Your task to perform on an android device: Open calendar and show me the first week of next month Image 0: 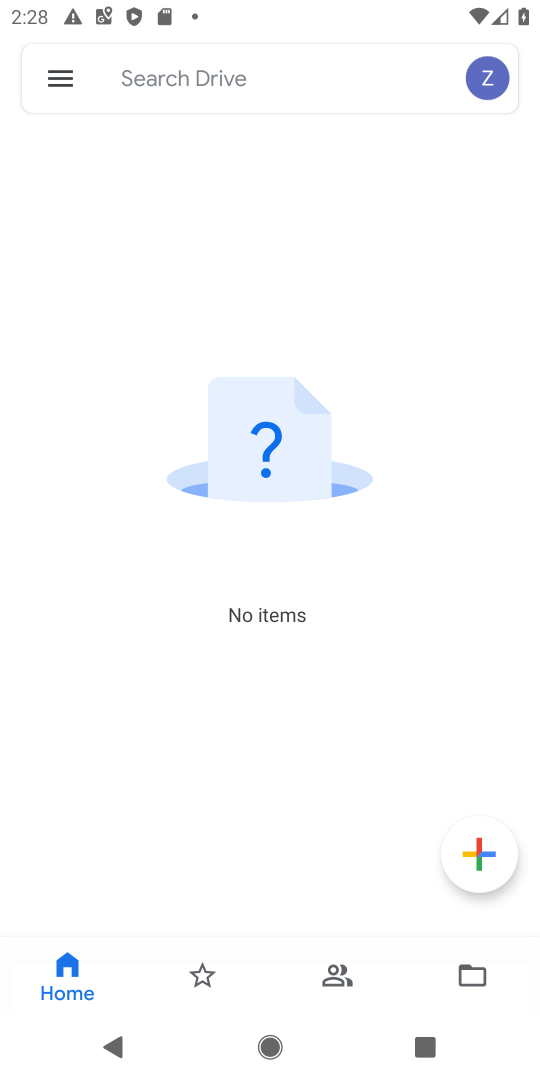
Step 0: press back button
Your task to perform on an android device: Open calendar and show me the first week of next month Image 1: 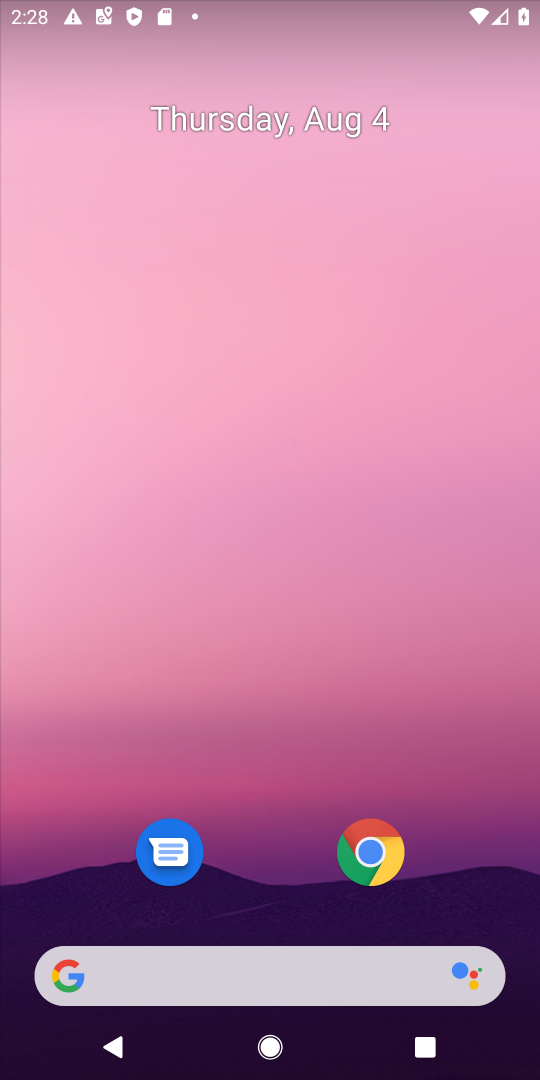
Step 1: drag from (244, 885) to (352, 16)
Your task to perform on an android device: Open calendar and show me the first week of next month Image 2: 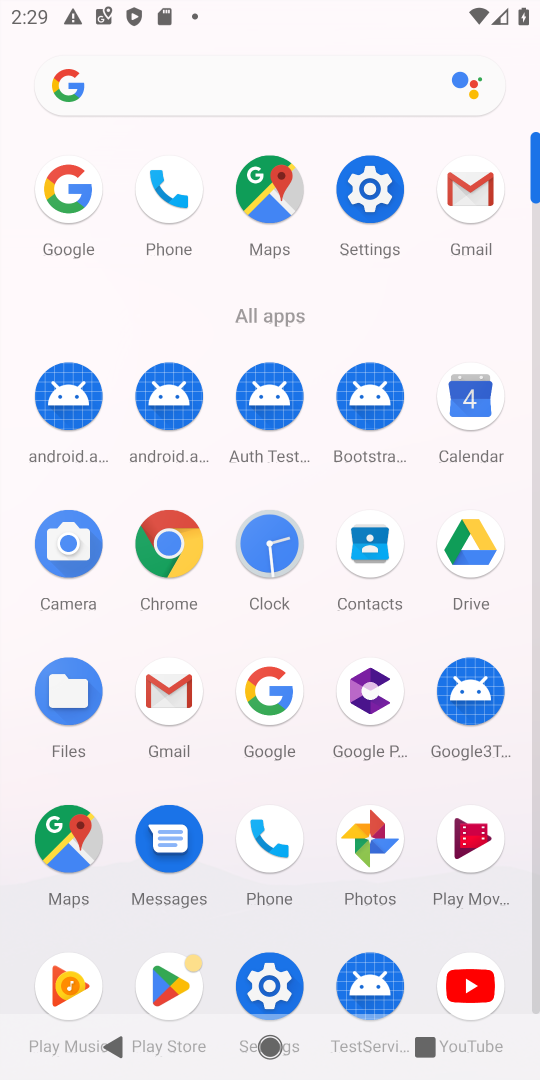
Step 2: click (470, 397)
Your task to perform on an android device: Open calendar and show me the first week of next month Image 3: 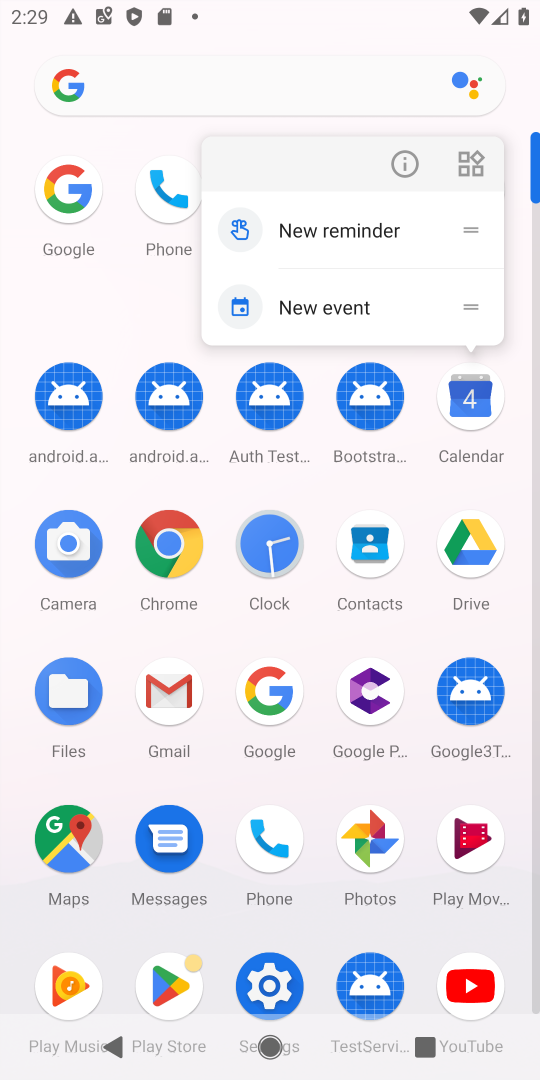
Step 3: click (469, 397)
Your task to perform on an android device: Open calendar and show me the first week of next month Image 4: 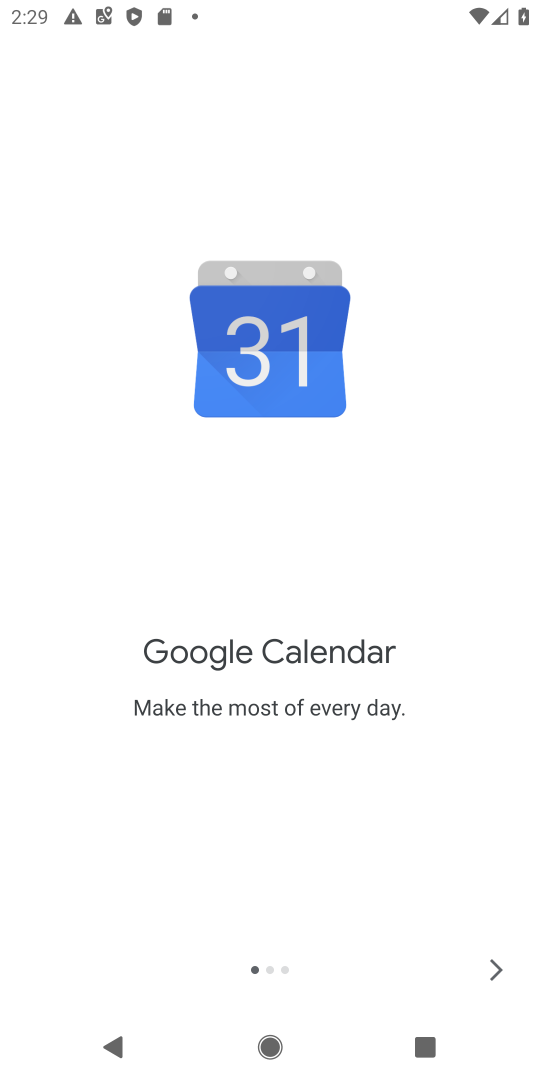
Step 4: click (489, 960)
Your task to perform on an android device: Open calendar and show me the first week of next month Image 5: 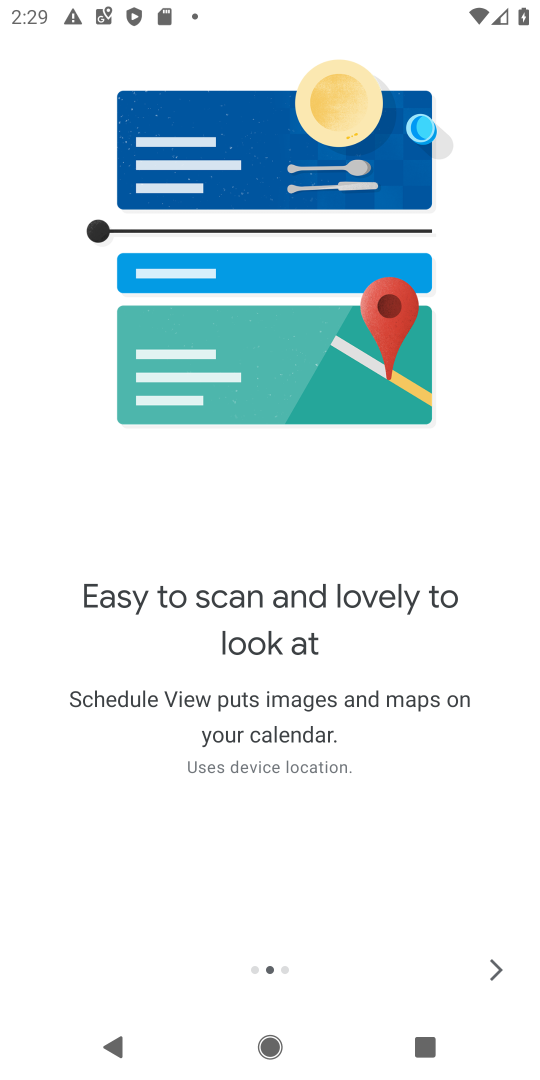
Step 5: click (495, 975)
Your task to perform on an android device: Open calendar and show me the first week of next month Image 6: 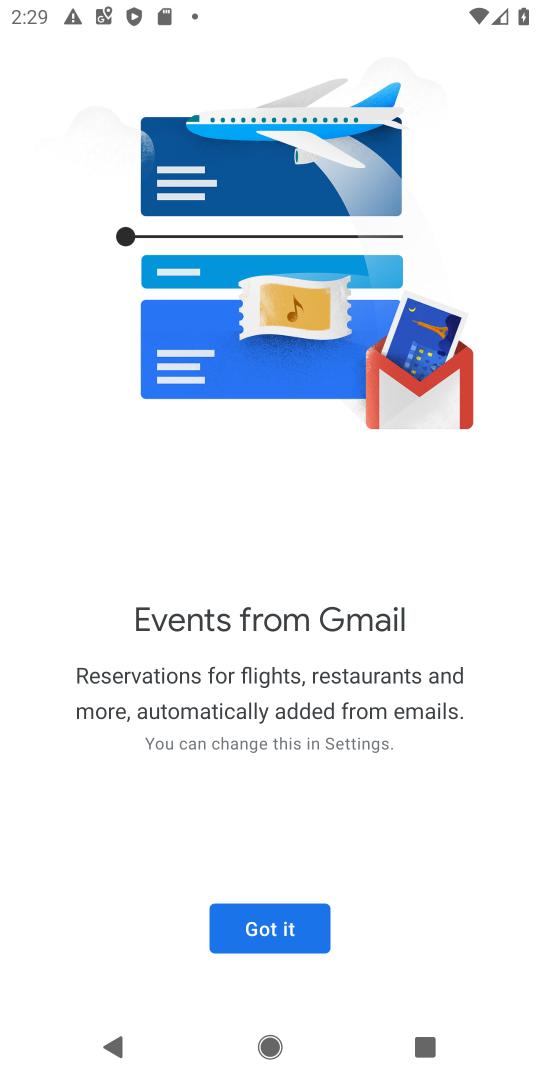
Step 6: click (232, 912)
Your task to perform on an android device: Open calendar and show me the first week of next month Image 7: 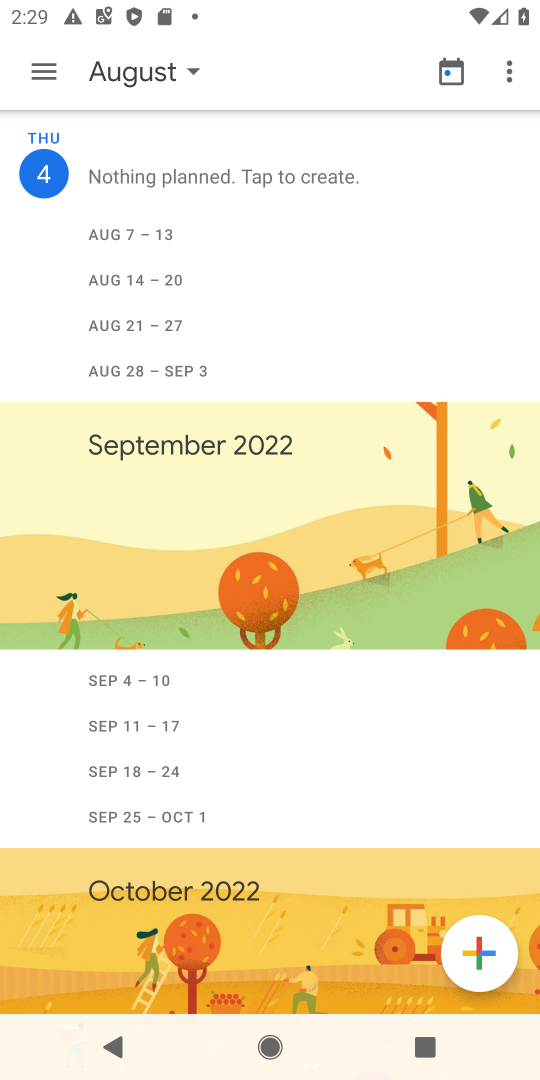
Step 7: click (165, 58)
Your task to perform on an android device: Open calendar and show me the first week of next month Image 8: 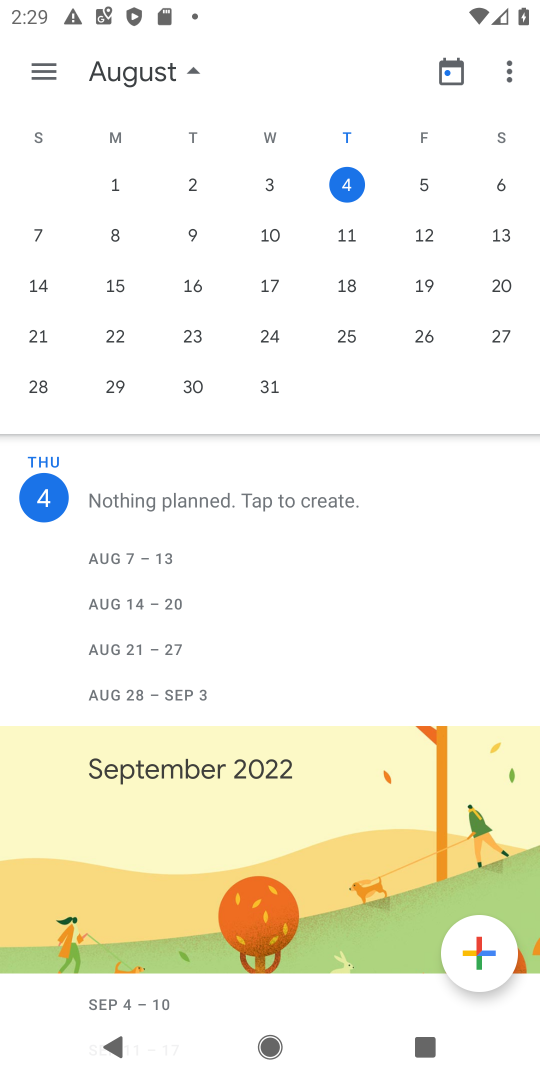
Step 8: drag from (494, 240) to (66, 252)
Your task to perform on an android device: Open calendar and show me the first week of next month Image 9: 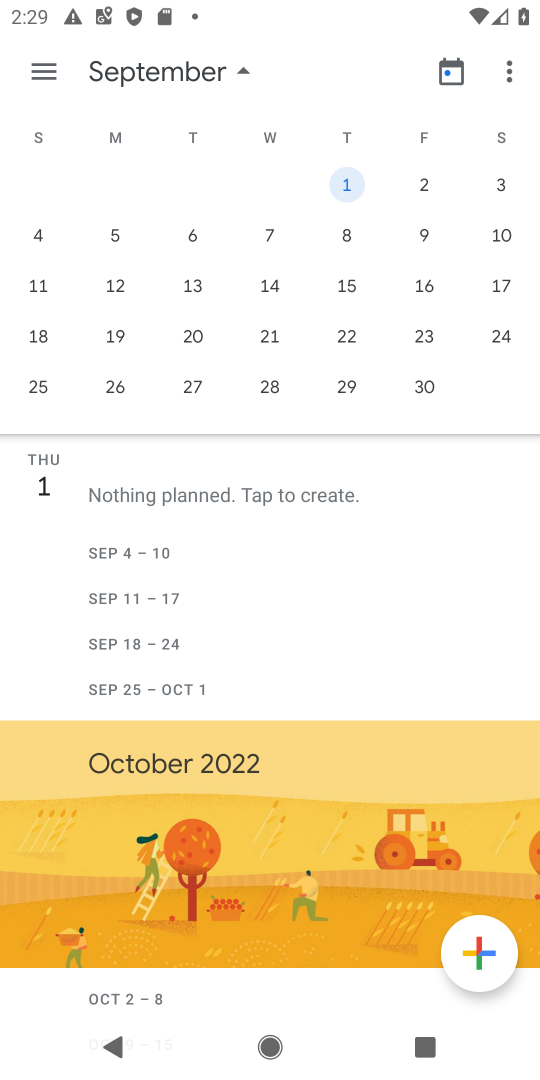
Step 9: click (343, 176)
Your task to perform on an android device: Open calendar and show me the first week of next month Image 10: 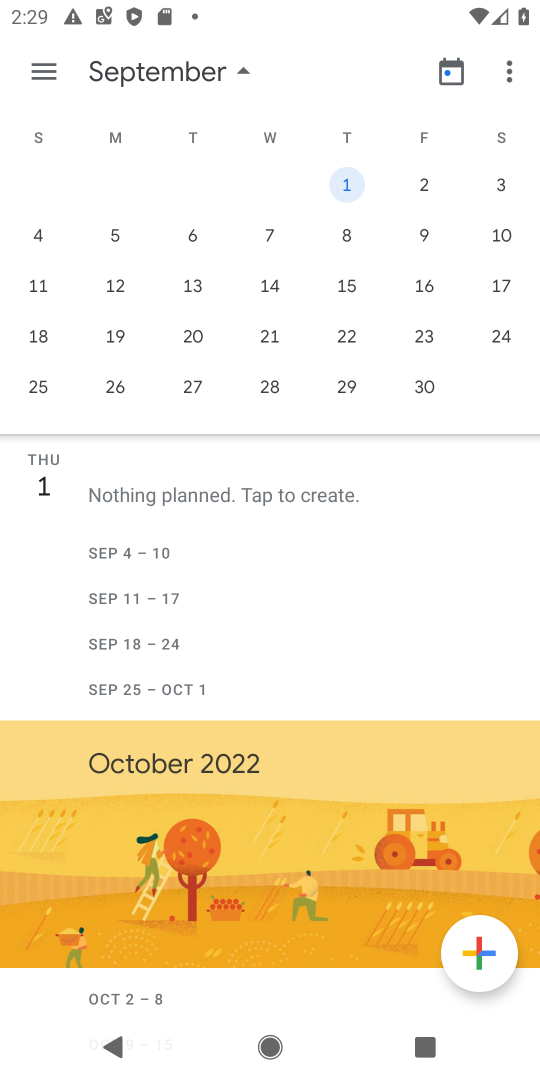
Step 10: task complete